Your task to perform on an android device: Open the stopwatch Image 0: 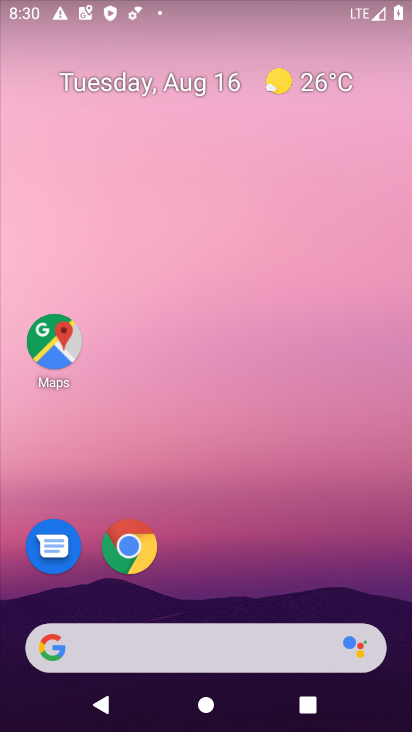
Step 0: drag from (205, 535) to (221, 0)
Your task to perform on an android device: Open the stopwatch Image 1: 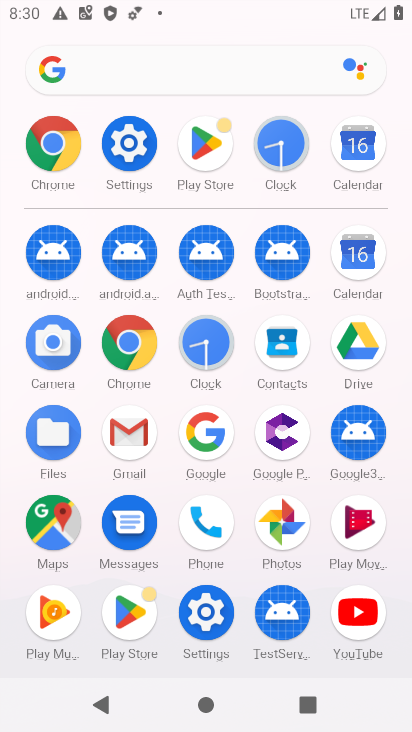
Step 1: click (292, 141)
Your task to perform on an android device: Open the stopwatch Image 2: 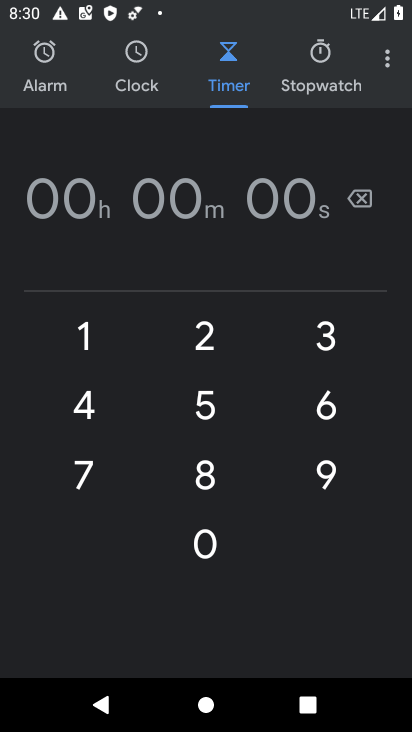
Step 2: click (320, 58)
Your task to perform on an android device: Open the stopwatch Image 3: 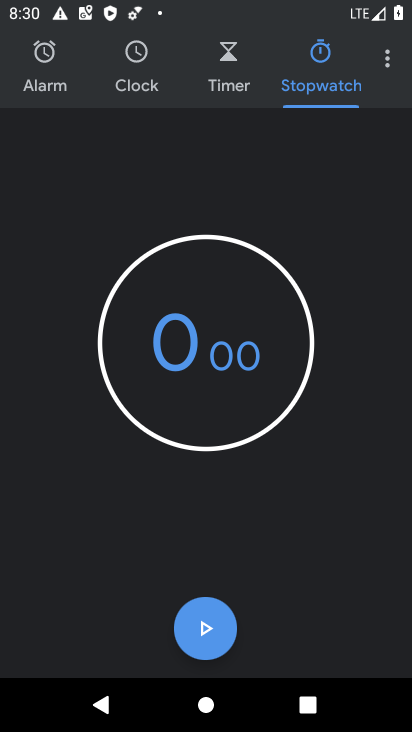
Step 3: task complete